Your task to perform on an android device: change the clock style Image 0: 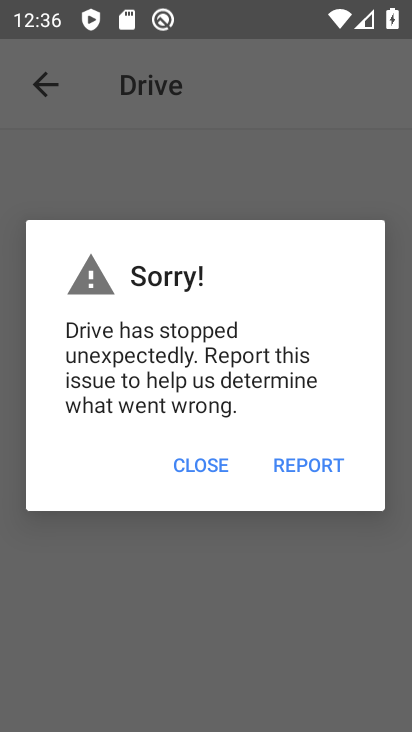
Step 0: press home button
Your task to perform on an android device: change the clock style Image 1: 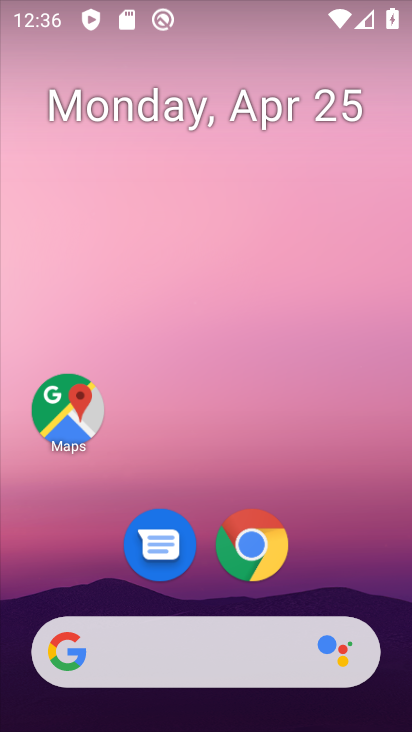
Step 1: drag from (330, 543) to (324, 63)
Your task to perform on an android device: change the clock style Image 2: 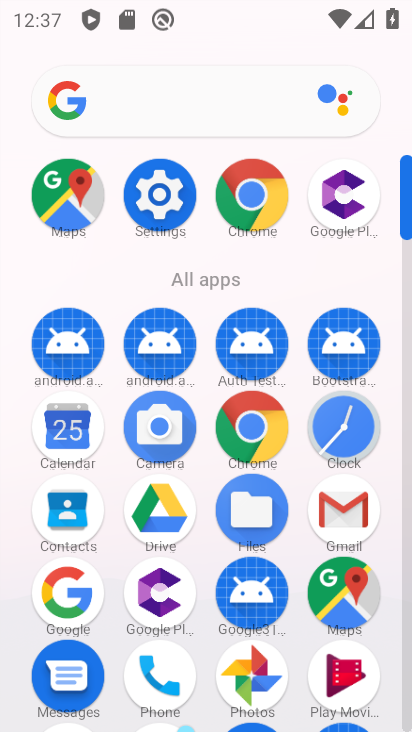
Step 2: click (346, 452)
Your task to perform on an android device: change the clock style Image 3: 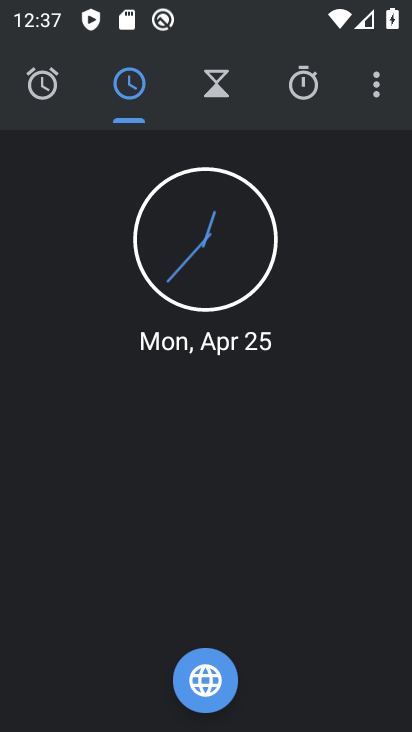
Step 3: click (379, 76)
Your task to perform on an android device: change the clock style Image 4: 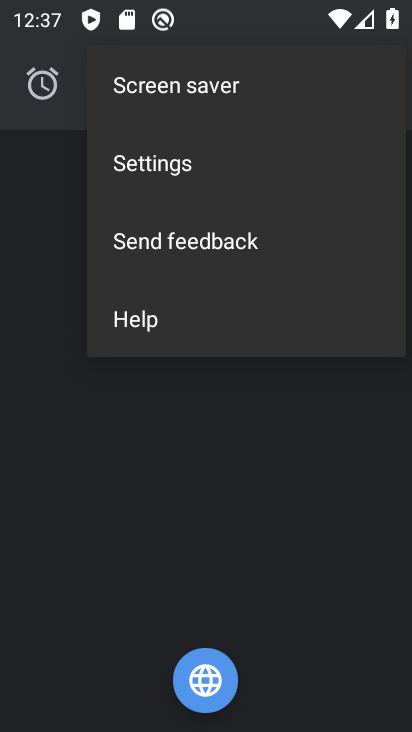
Step 4: click (179, 164)
Your task to perform on an android device: change the clock style Image 5: 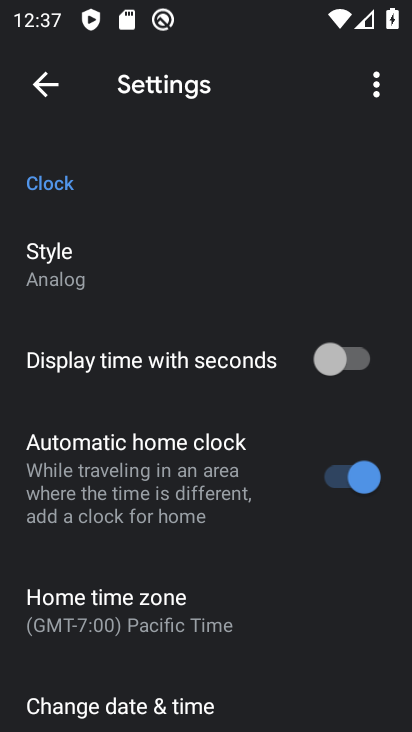
Step 5: click (60, 279)
Your task to perform on an android device: change the clock style Image 6: 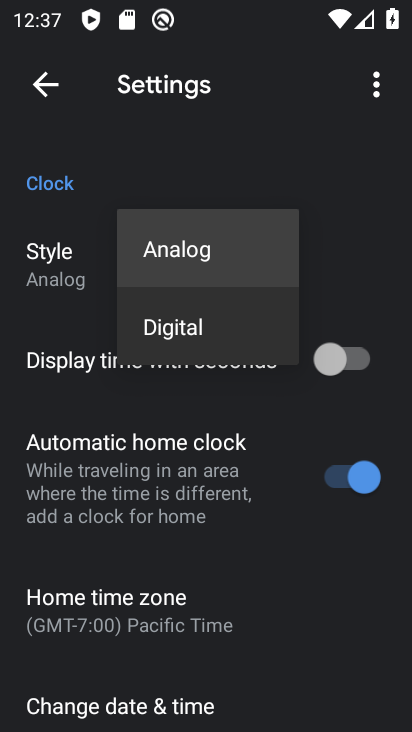
Step 6: click (199, 330)
Your task to perform on an android device: change the clock style Image 7: 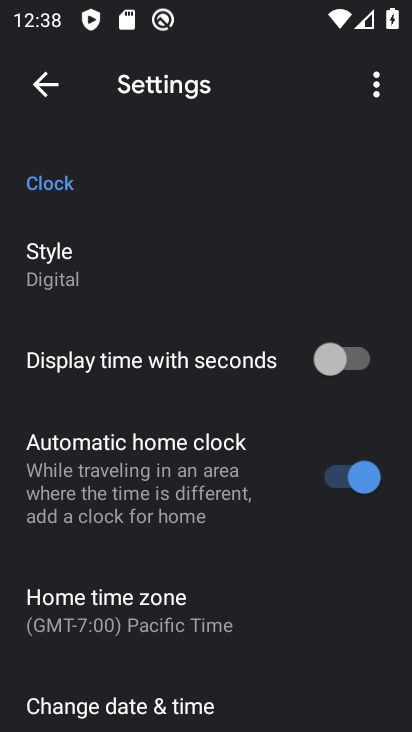
Step 7: task complete